Your task to perform on an android device: delete a single message in the gmail app Image 0: 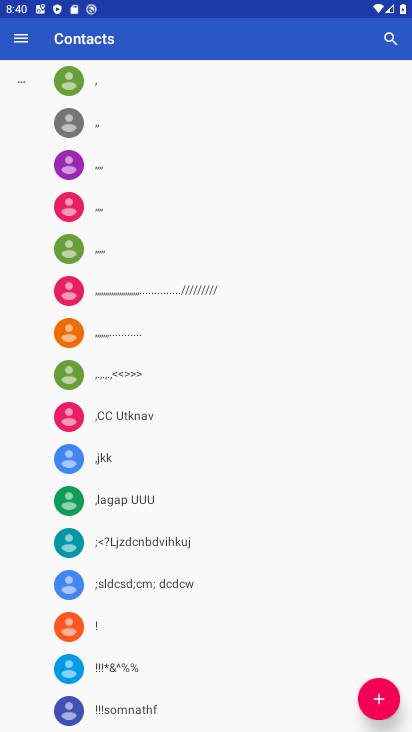
Step 0: press home button
Your task to perform on an android device: delete a single message in the gmail app Image 1: 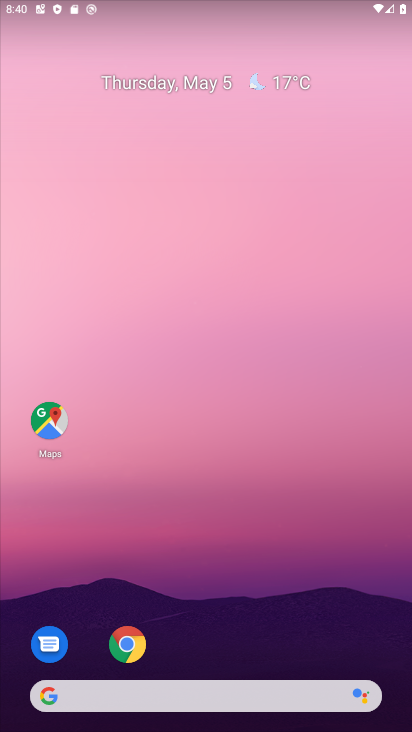
Step 1: drag from (291, 651) to (256, 126)
Your task to perform on an android device: delete a single message in the gmail app Image 2: 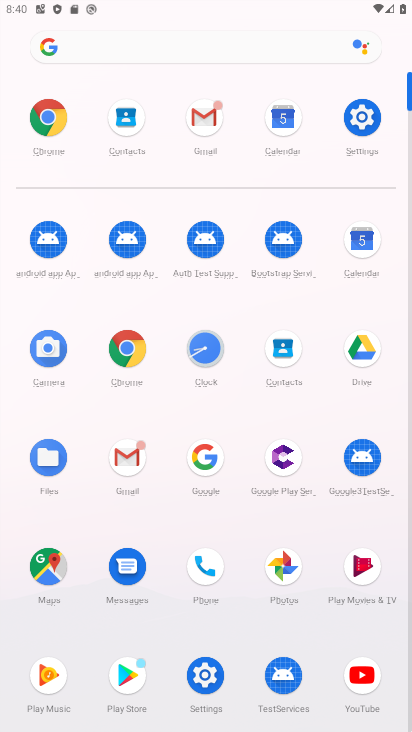
Step 2: click (200, 125)
Your task to perform on an android device: delete a single message in the gmail app Image 3: 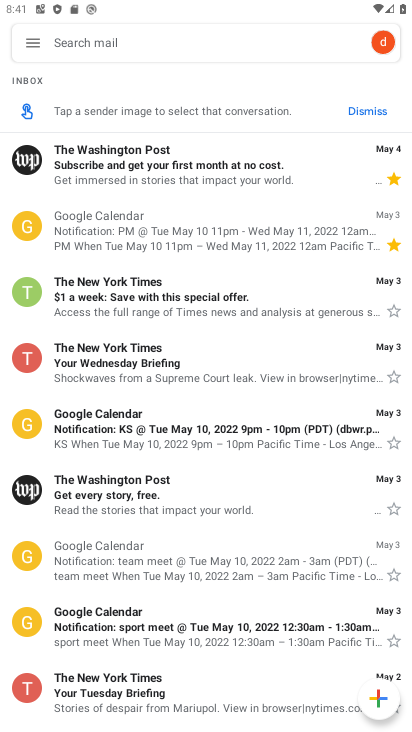
Step 3: click (188, 365)
Your task to perform on an android device: delete a single message in the gmail app Image 4: 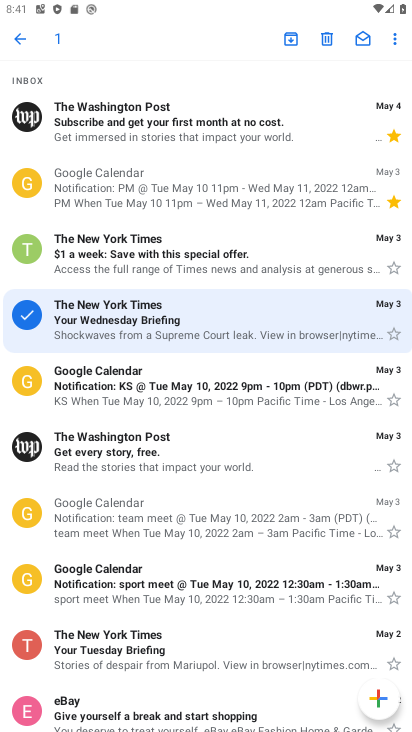
Step 4: click (328, 39)
Your task to perform on an android device: delete a single message in the gmail app Image 5: 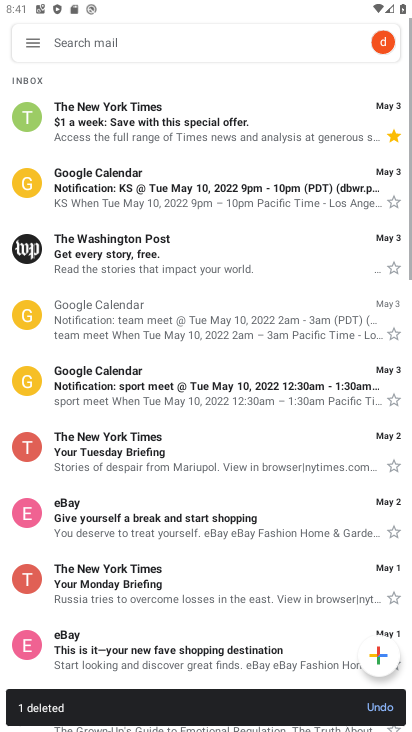
Step 5: task complete